Your task to perform on an android device: Search for Mexican restaurants on Maps Image 0: 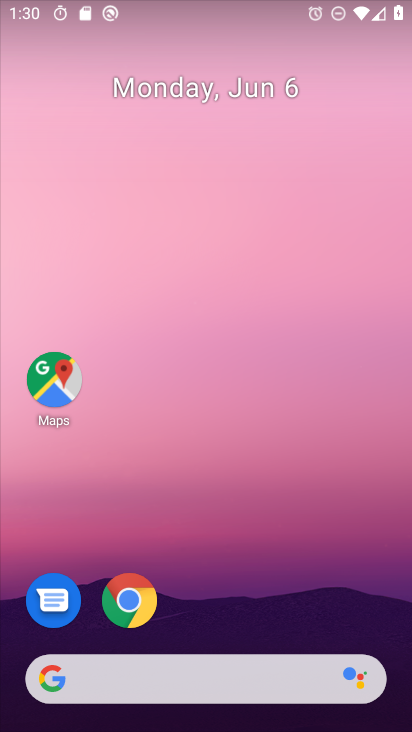
Step 0: click (52, 403)
Your task to perform on an android device: Search for Mexican restaurants on Maps Image 1: 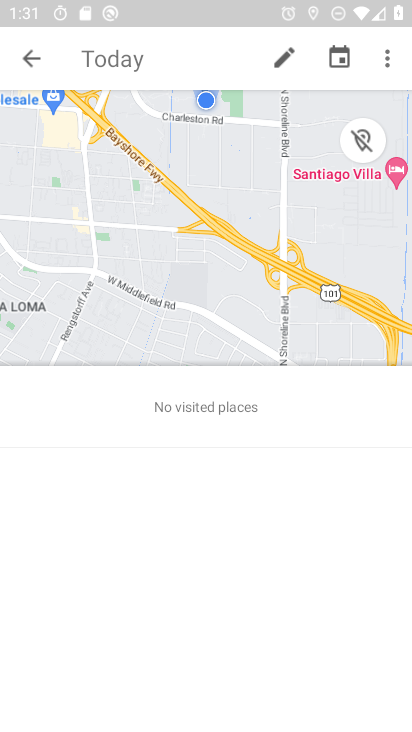
Step 1: click (39, 54)
Your task to perform on an android device: Search for Mexican restaurants on Maps Image 2: 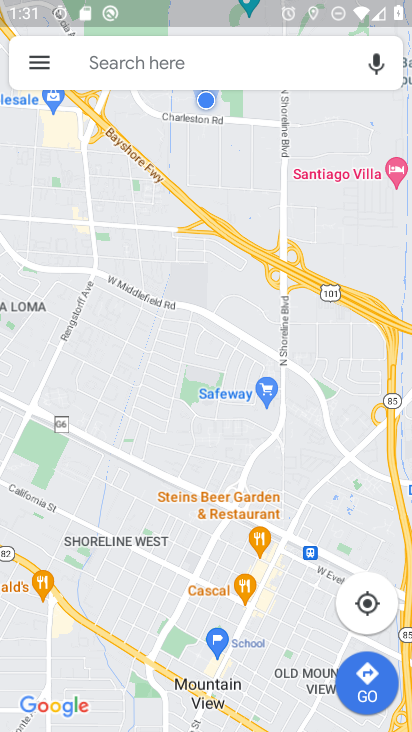
Step 2: click (160, 49)
Your task to perform on an android device: Search for Mexican restaurants on Maps Image 3: 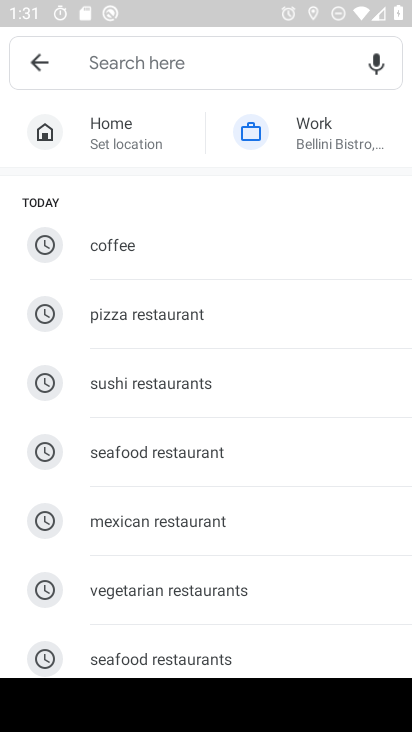
Step 3: click (223, 523)
Your task to perform on an android device: Search for Mexican restaurants on Maps Image 4: 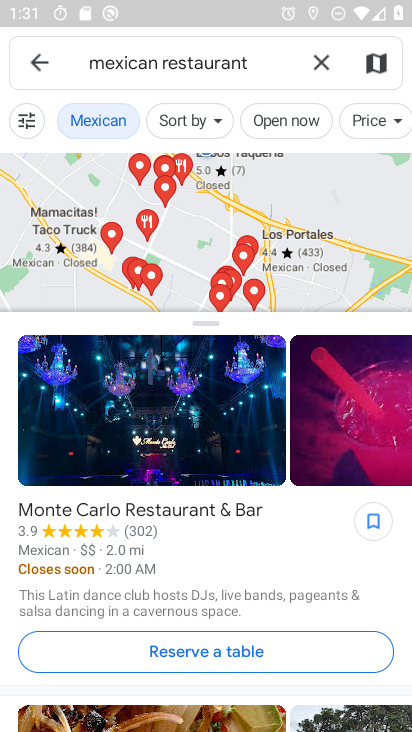
Step 4: task complete